Your task to perform on an android device: allow cookies in the chrome app Image 0: 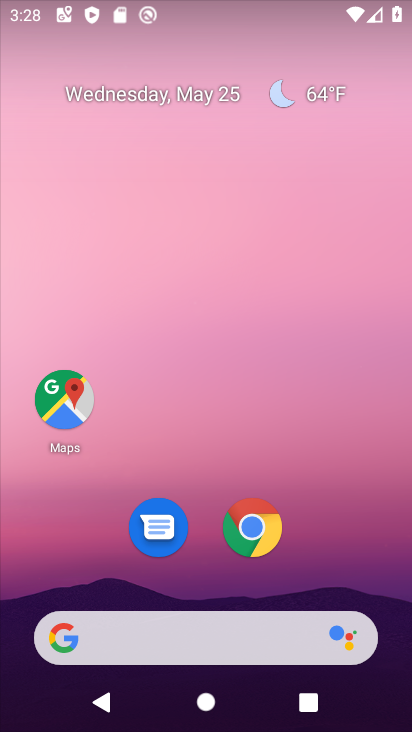
Step 0: click (262, 530)
Your task to perform on an android device: allow cookies in the chrome app Image 1: 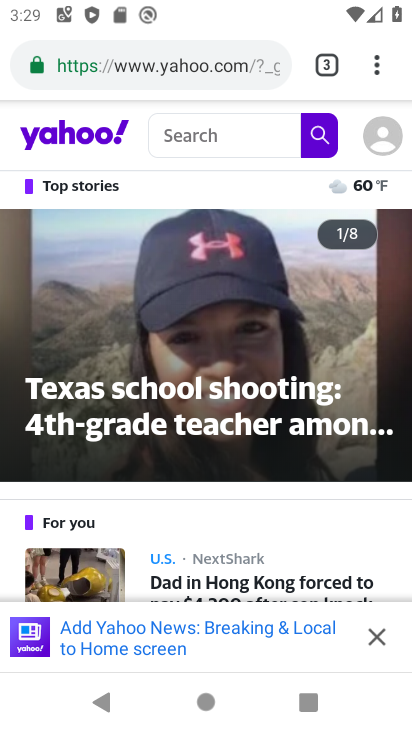
Step 1: drag from (373, 65) to (170, 576)
Your task to perform on an android device: allow cookies in the chrome app Image 2: 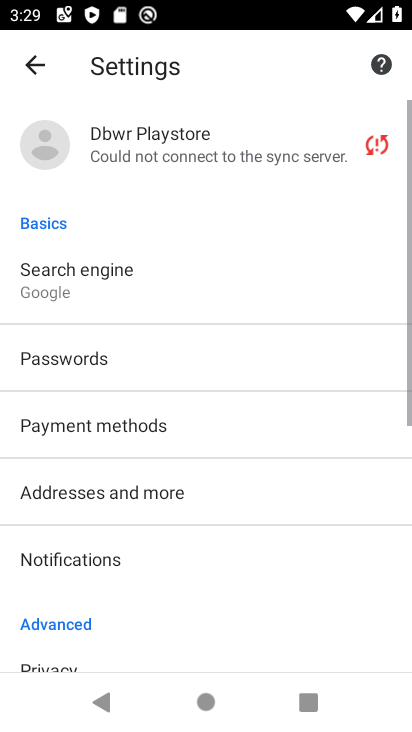
Step 2: drag from (165, 626) to (225, 164)
Your task to perform on an android device: allow cookies in the chrome app Image 3: 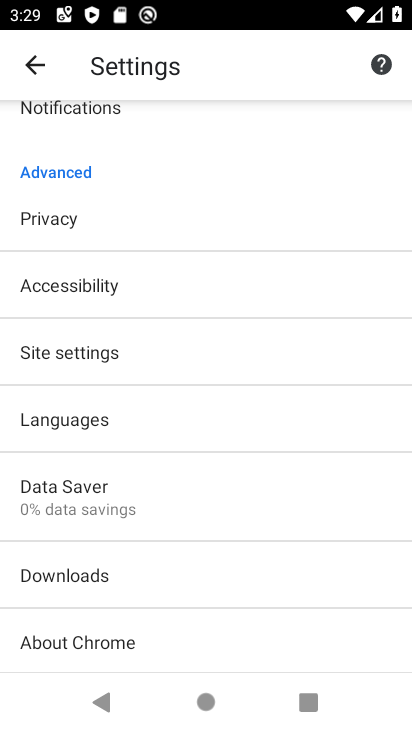
Step 3: click (86, 354)
Your task to perform on an android device: allow cookies in the chrome app Image 4: 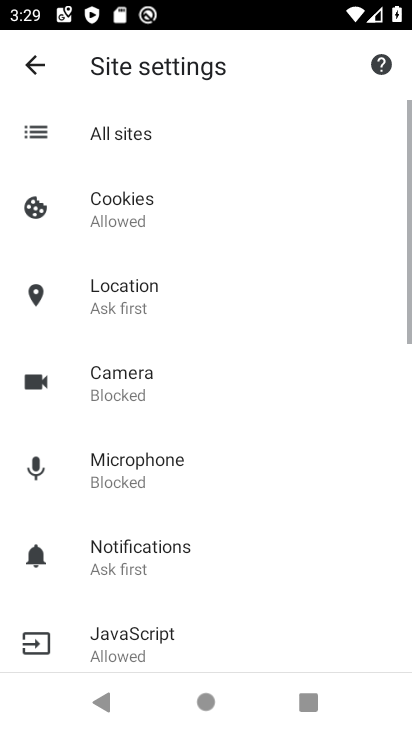
Step 4: click (127, 220)
Your task to perform on an android device: allow cookies in the chrome app Image 5: 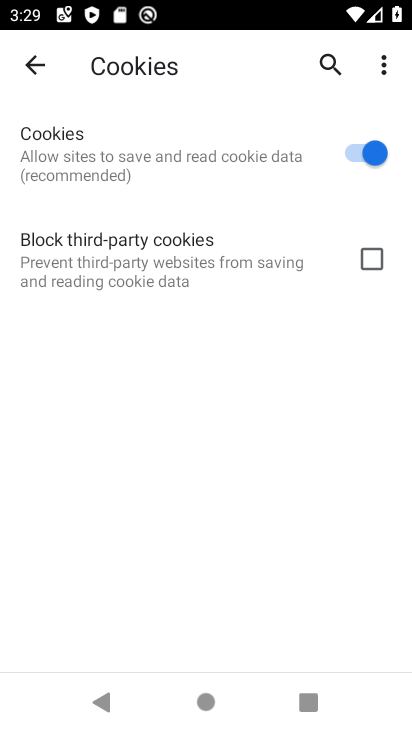
Step 5: task complete